Your task to perform on an android device: Is it going to rain this weekend? Image 0: 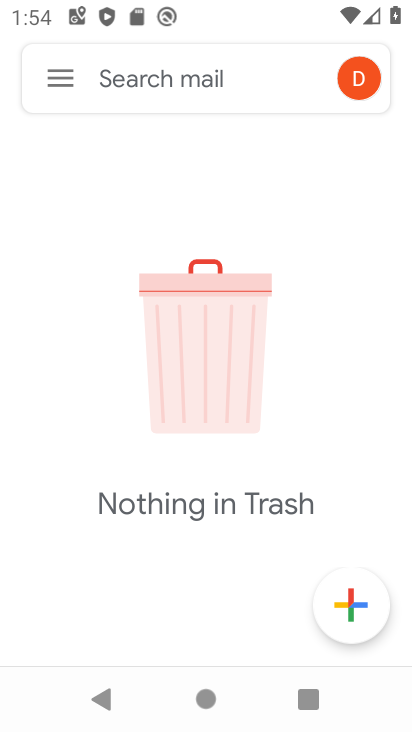
Step 0: press home button
Your task to perform on an android device: Is it going to rain this weekend? Image 1: 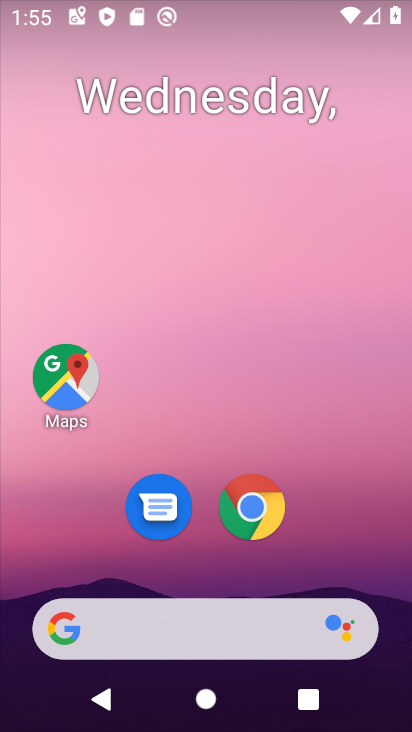
Step 1: drag from (368, 573) to (365, 215)
Your task to perform on an android device: Is it going to rain this weekend? Image 2: 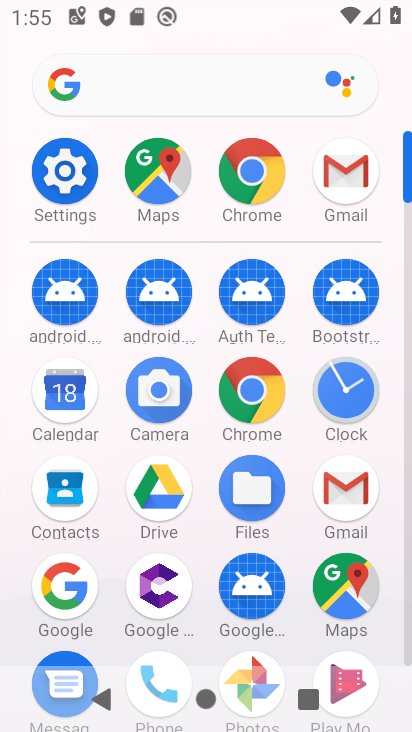
Step 2: click (233, 172)
Your task to perform on an android device: Is it going to rain this weekend? Image 3: 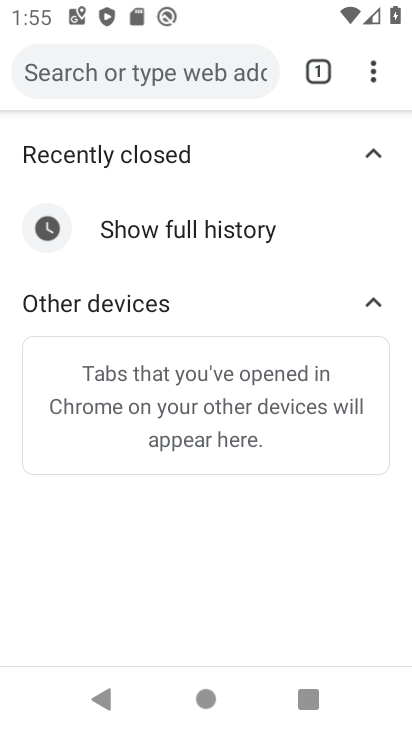
Step 3: click (215, 82)
Your task to perform on an android device: Is it going to rain this weekend? Image 4: 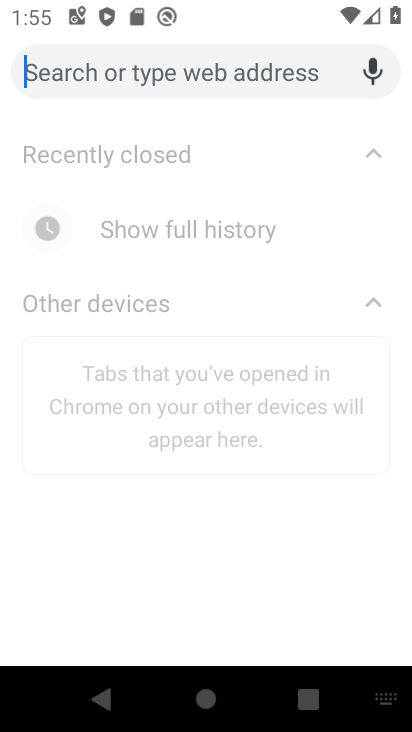
Step 4: type "is it going to rain this weekend"
Your task to perform on an android device: Is it going to rain this weekend? Image 5: 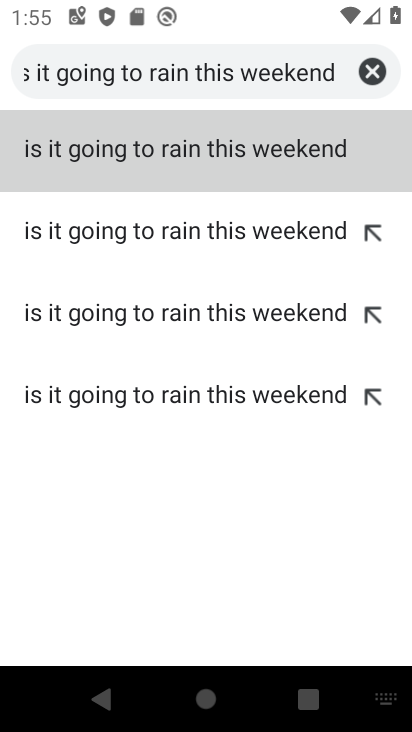
Step 5: click (134, 153)
Your task to perform on an android device: Is it going to rain this weekend? Image 6: 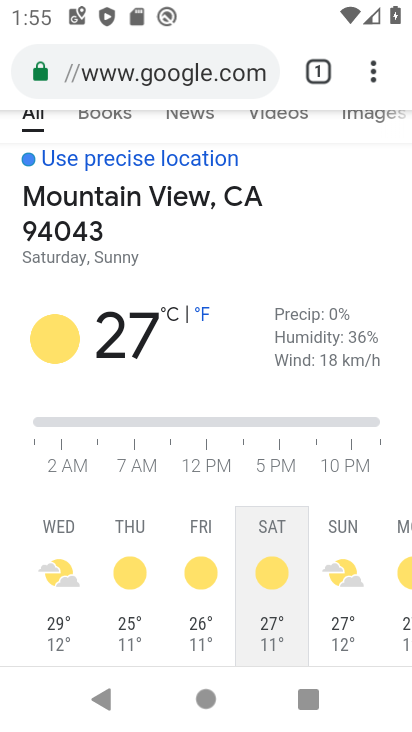
Step 6: task complete